Your task to perform on an android device: Go to internet settings Image 0: 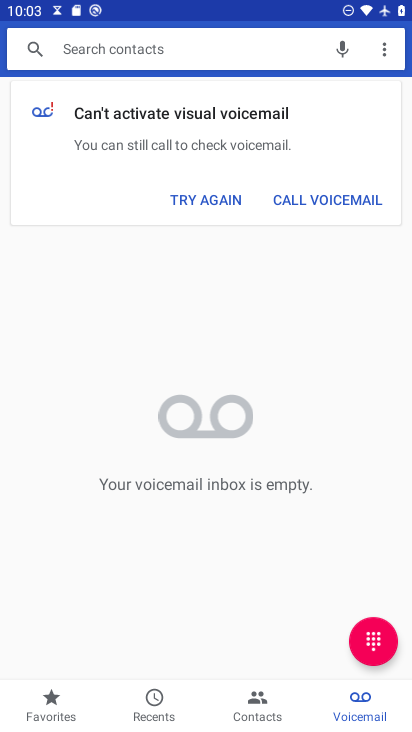
Step 0: press home button
Your task to perform on an android device: Go to internet settings Image 1: 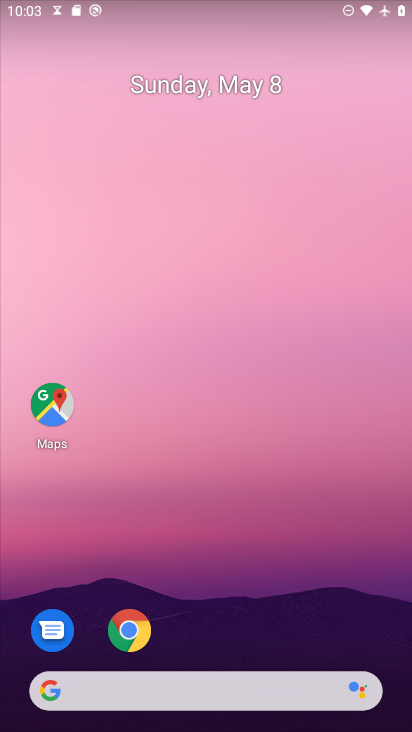
Step 1: drag from (174, 694) to (313, 107)
Your task to perform on an android device: Go to internet settings Image 2: 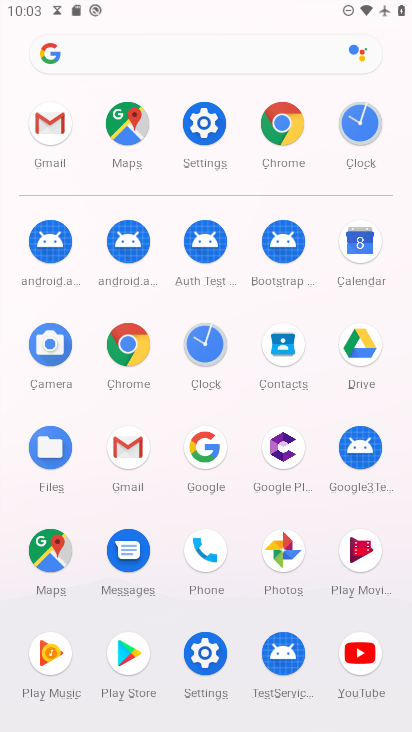
Step 2: click (202, 119)
Your task to perform on an android device: Go to internet settings Image 3: 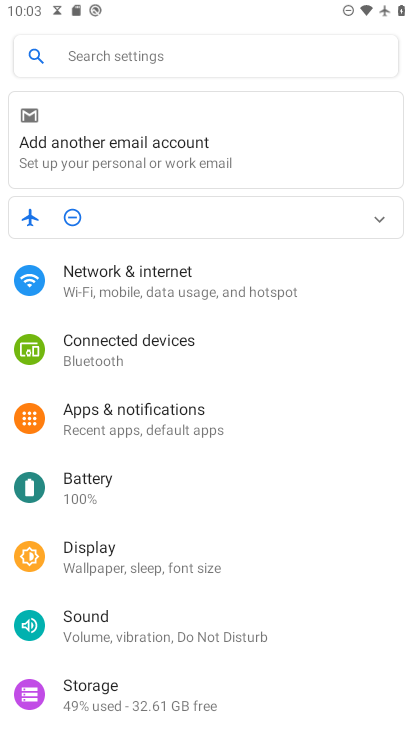
Step 3: click (154, 281)
Your task to perform on an android device: Go to internet settings Image 4: 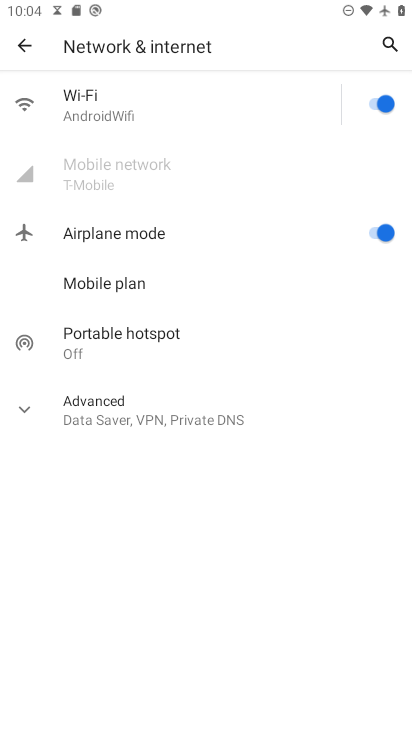
Step 4: task complete